Your task to perform on an android device: Open calendar and show me the first week of next month Image 0: 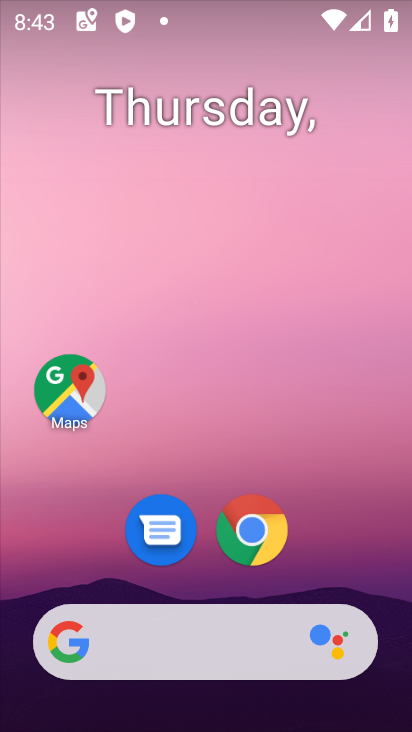
Step 0: drag from (254, 607) to (277, 156)
Your task to perform on an android device: Open calendar and show me the first week of next month Image 1: 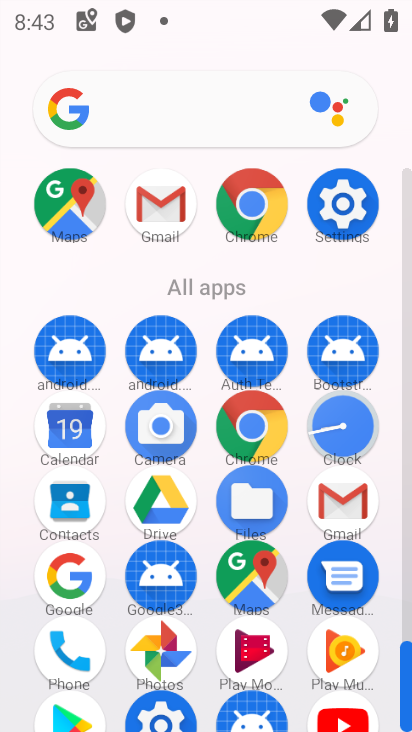
Step 1: drag from (178, 483) to (219, 157)
Your task to perform on an android device: Open calendar and show me the first week of next month Image 2: 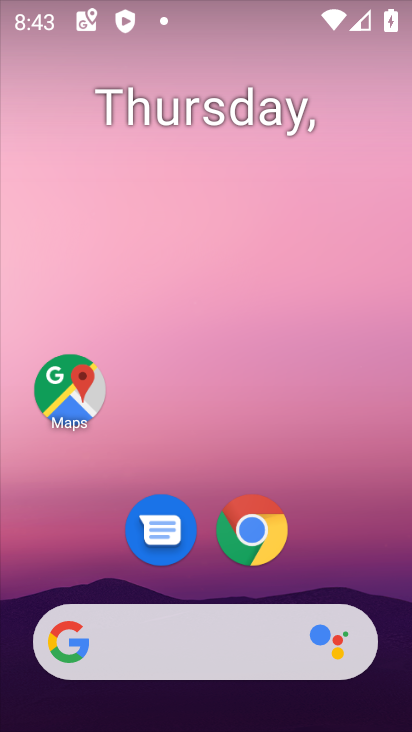
Step 2: drag from (228, 674) to (254, 161)
Your task to perform on an android device: Open calendar and show me the first week of next month Image 3: 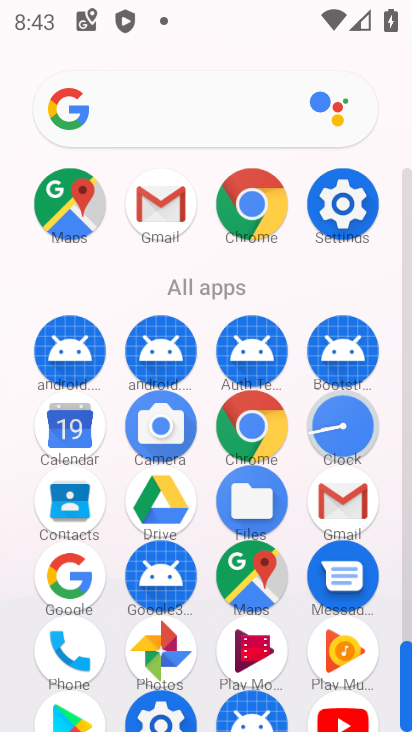
Step 3: drag from (120, 516) to (173, 217)
Your task to perform on an android device: Open calendar and show me the first week of next month Image 4: 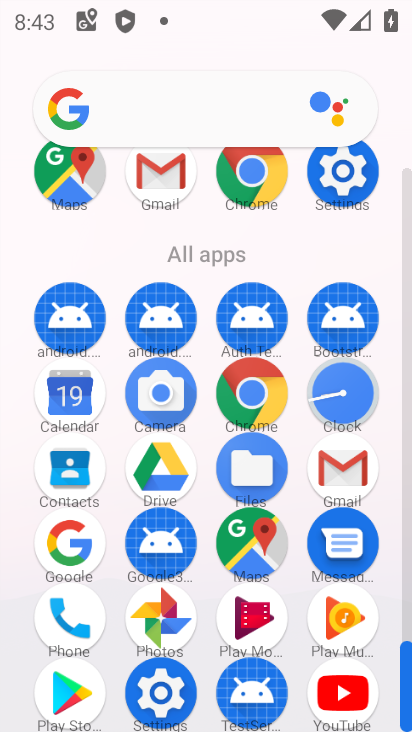
Step 4: click (74, 413)
Your task to perform on an android device: Open calendar and show me the first week of next month Image 5: 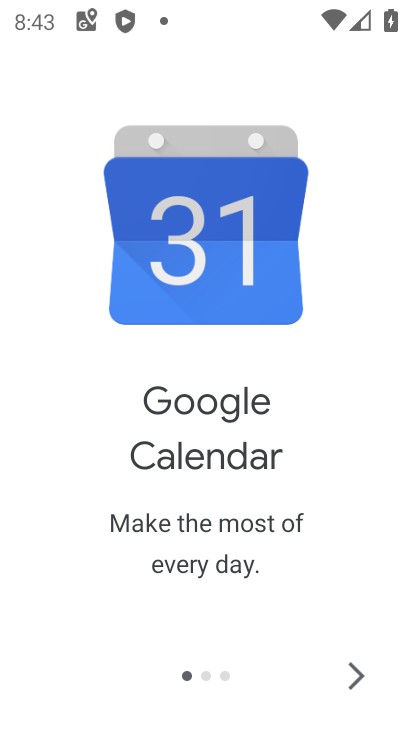
Step 5: click (353, 691)
Your task to perform on an android device: Open calendar and show me the first week of next month Image 6: 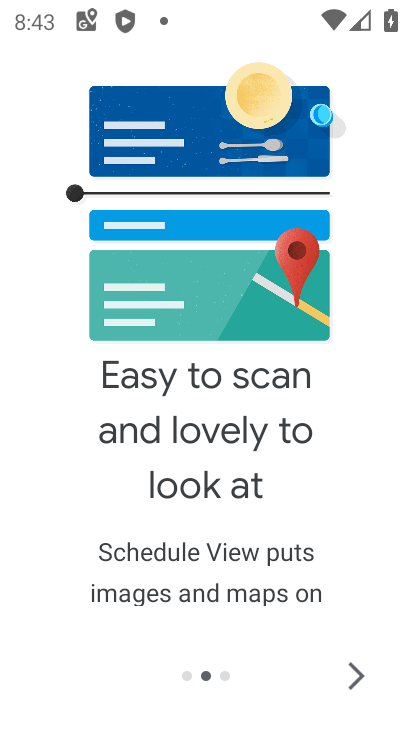
Step 6: click (365, 683)
Your task to perform on an android device: Open calendar and show me the first week of next month Image 7: 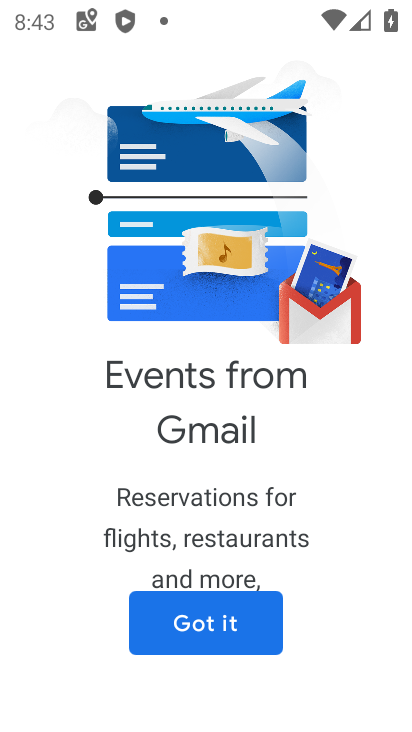
Step 7: click (225, 615)
Your task to perform on an android device: Open calendar and show me the first week of next month Image 8: 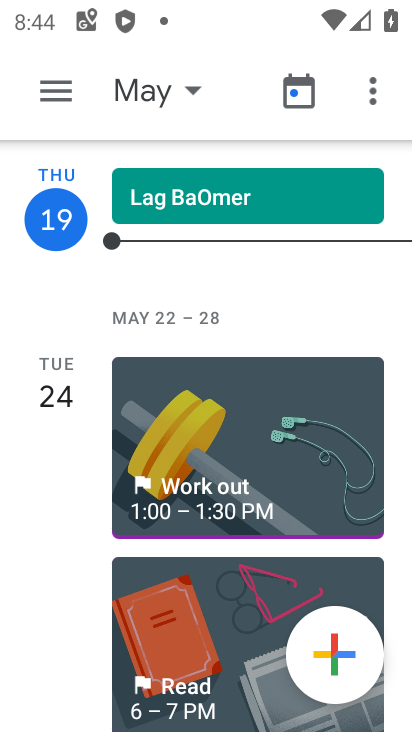
Step 8: click (176, 106)
Your task to perform on an android device: Open calendar and show me the first week of next month Image 9: 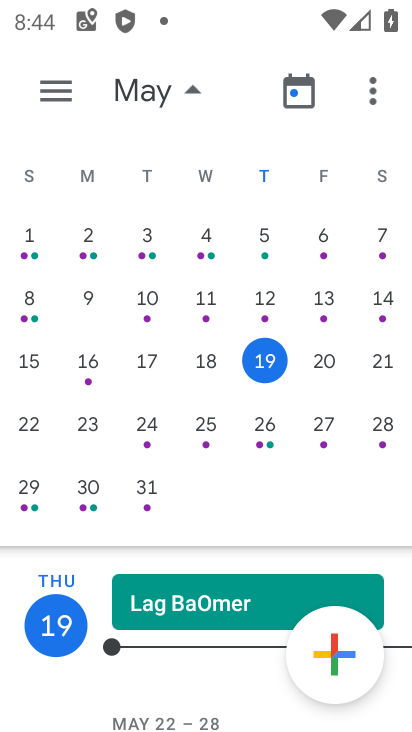
Step 9: drag from (386, 427) to (18, 461)
Your task to perform on an android device: Open calendar and show me the first week of next month Image 10: 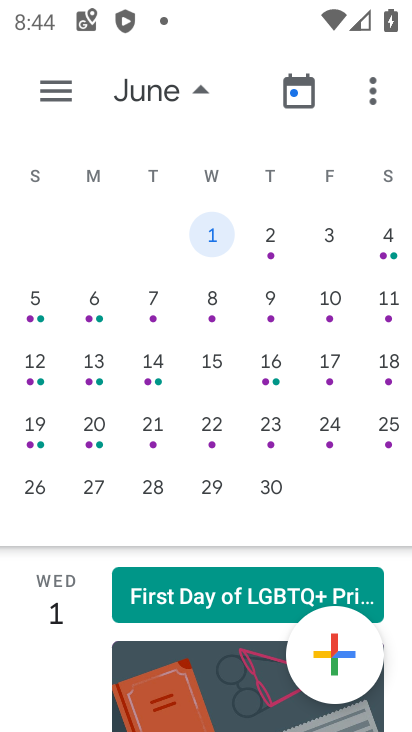
Step 10: drag from (248, 427) to (103, 430)
Your task to perform on an android device: Open calendar and show me the first week of next month Image 11: 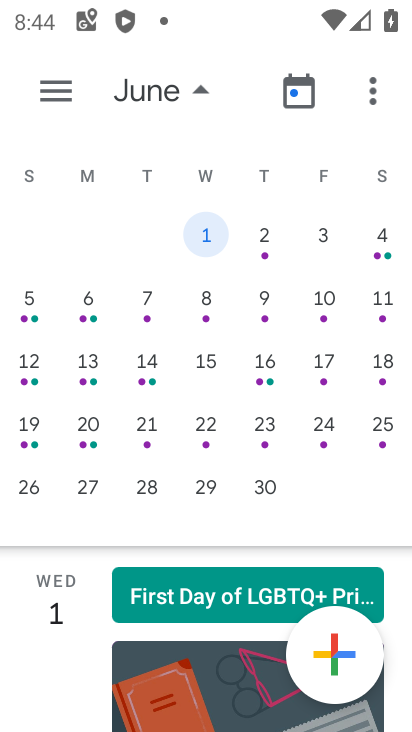
Step 11: click (34, 309)
Your task to perform on an android device: Open calendar and show me the first week of next month Image 12: 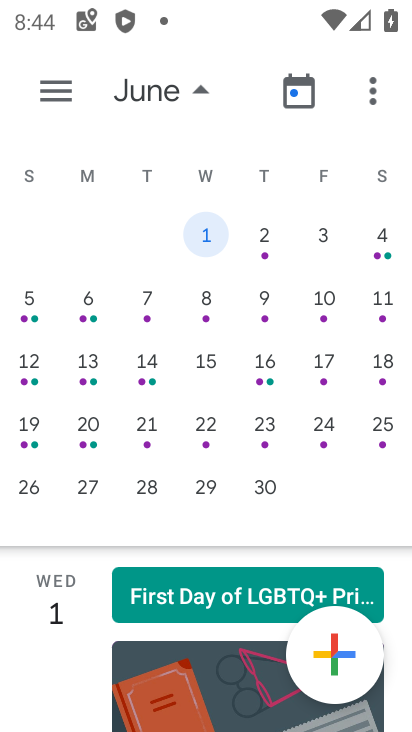
Step 12: click (44, 330)
Your task to perform on an android device: Open calendar and show me the first week of next month Image 13: 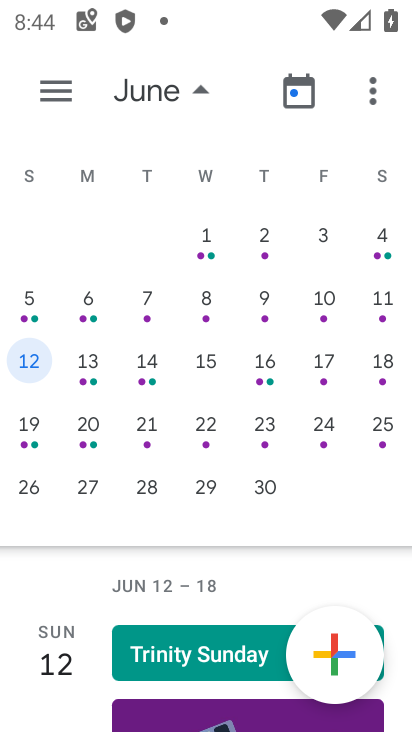
Step 13: click (31, 315)
Your task to perform on an android device: Open calendar and show me the first week of next month Image 14: 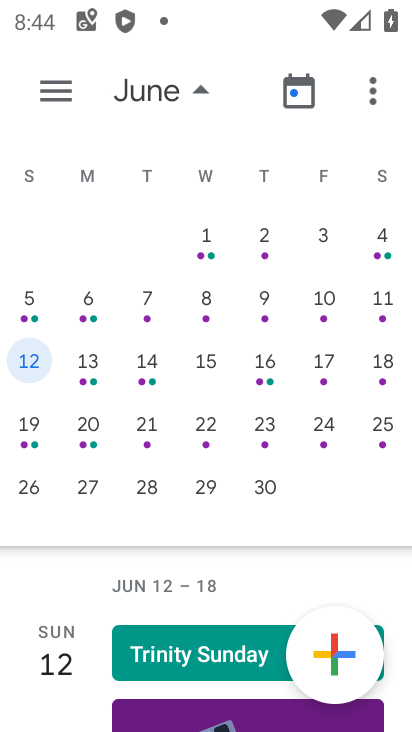
Step 14: click (44, 310)
Your task to perform on an android device: Open calendar and show me the first week of next month Image 15: 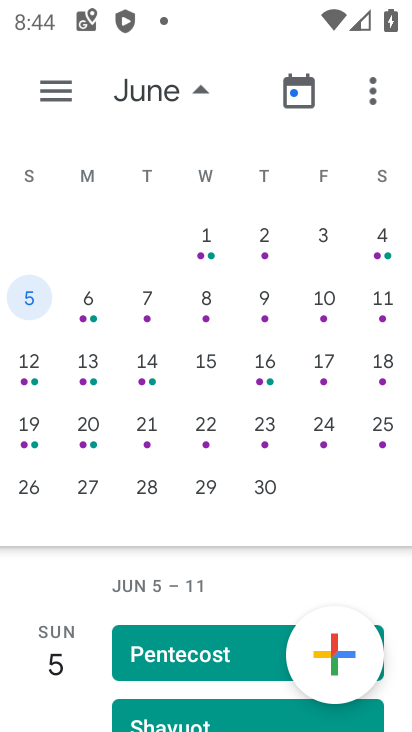
Step 15: task complete